Your task to perform on an android device: Go to sound settings Image 0: 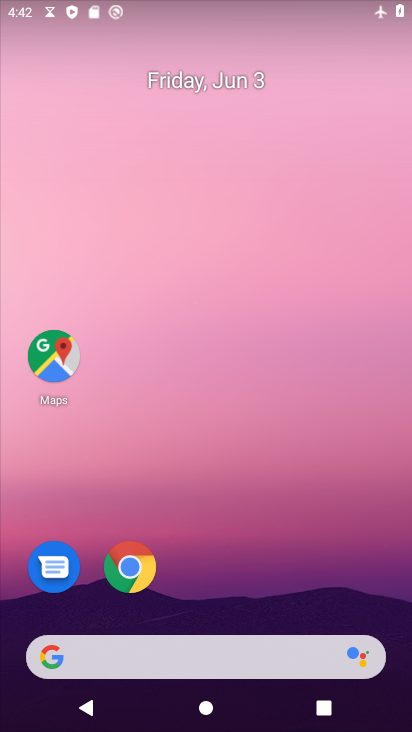
Step 0: drag from (277, 558) to (200, 130)
Your task to perform on an android device: Go to sound settings Image 1: 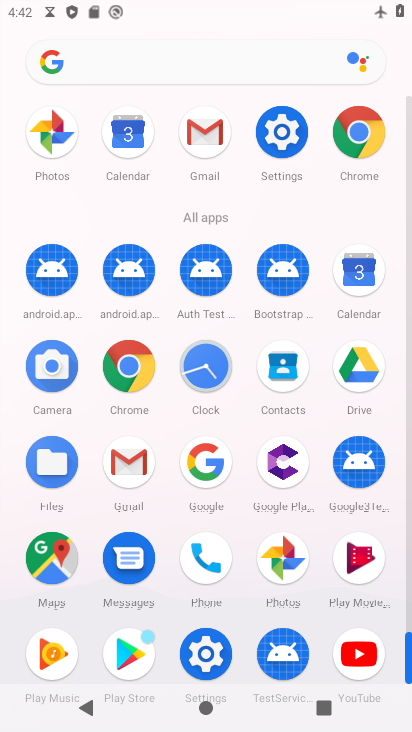
Step 1: click (283, 131)
Your task to perform on an android device: Go to sound settings Image 2: 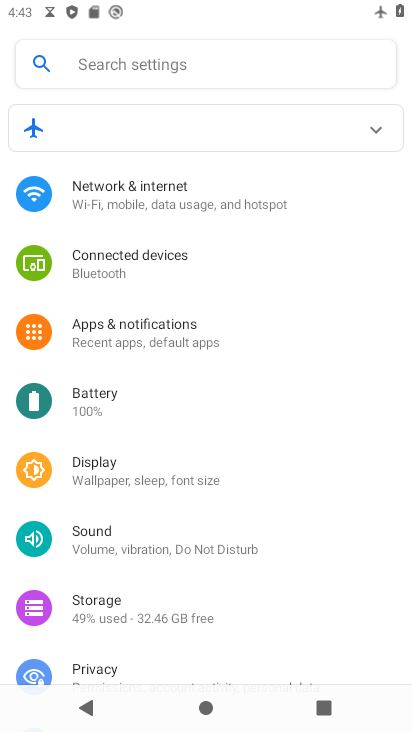
Step 2: click (160, 543)
Your task to perform on an android device: Go to sound settings Image 3: 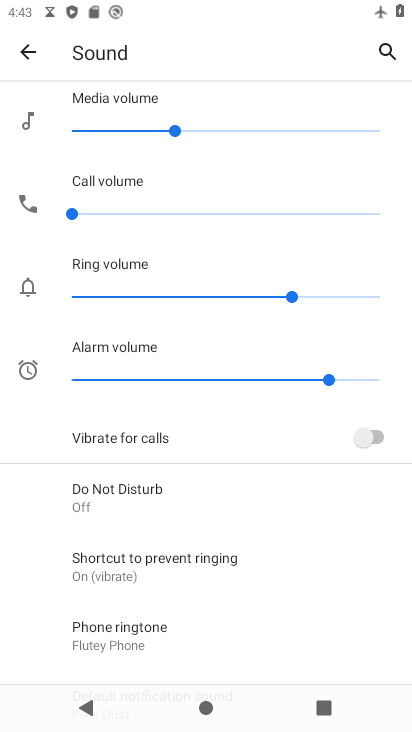
Step 3: task complete